Your task to perform on an android device: Open ESPN.com Image 0: 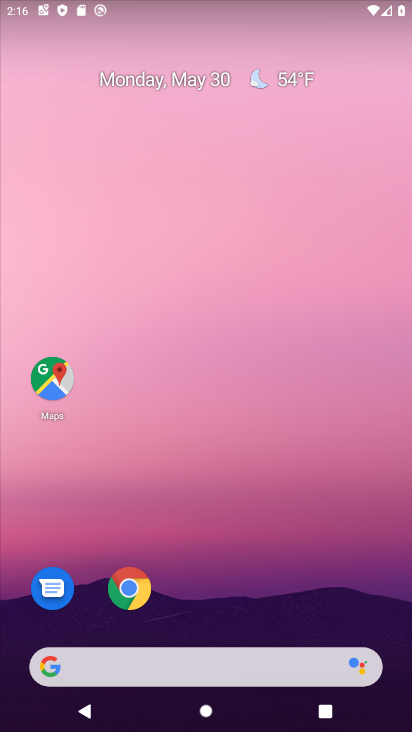
Step 0: drag from (223, 599) to (300, 99)
Your task to perform on an android device: Open ESPN.com Image 1: 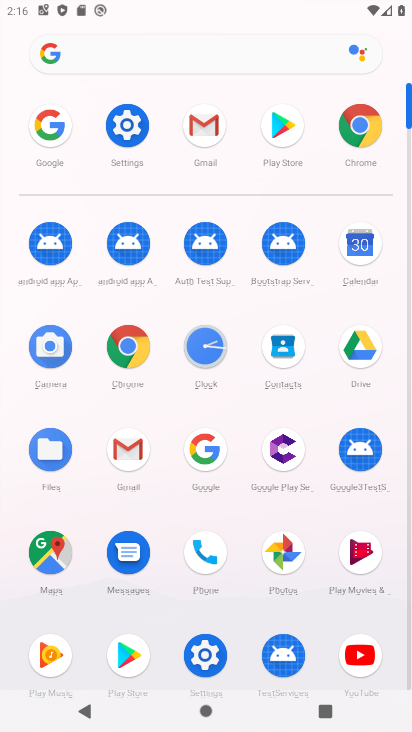
Step 1: click (207, 449)
Your task to perform on an android device: Open ESPN.com Image 2: 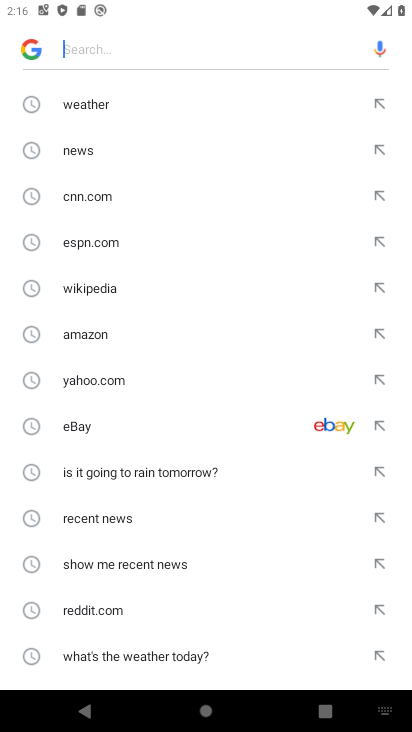
Step 2: drag from (151, 509) to (163, 279)
Your task to perform on an android device: Open ESPN.com Image 3: 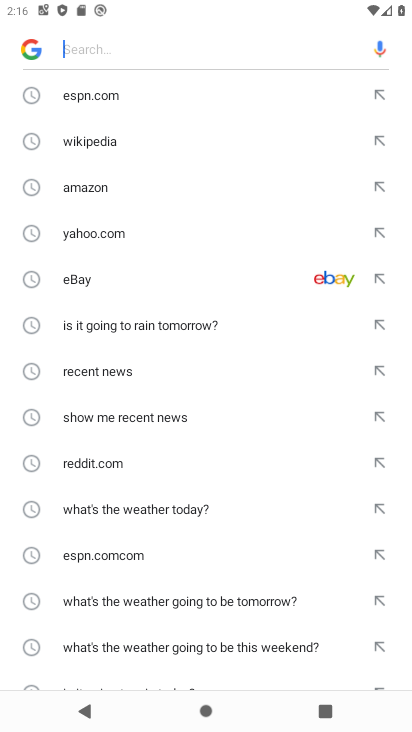
Step 3: click (93, 93)
Your task to perform on an android device: Open ESPN.com Image 4: 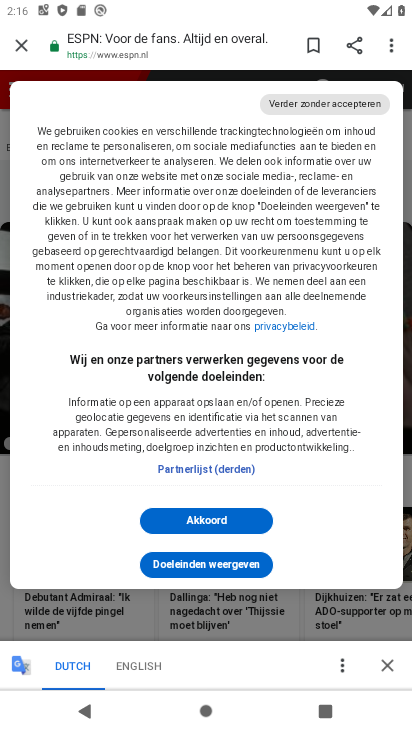
Step 4: task complete